Your task to perform on an android device: toggle pop-ups in chrome Image 0: 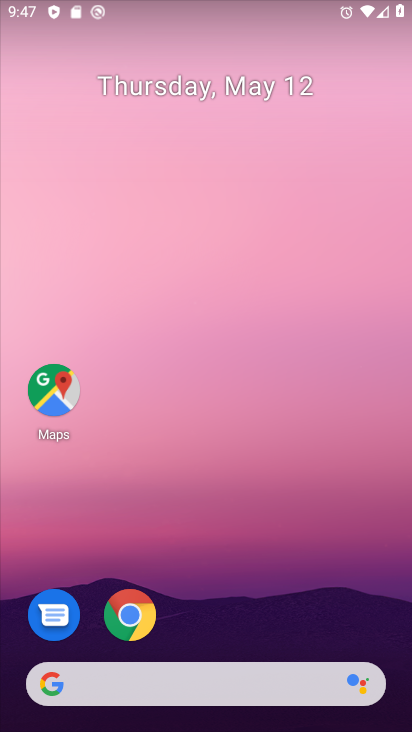
Step 0: drag from (265, 626) to (330, 104)
Your task to perform on an android device: toggle pop-ups in chrome Image 1: 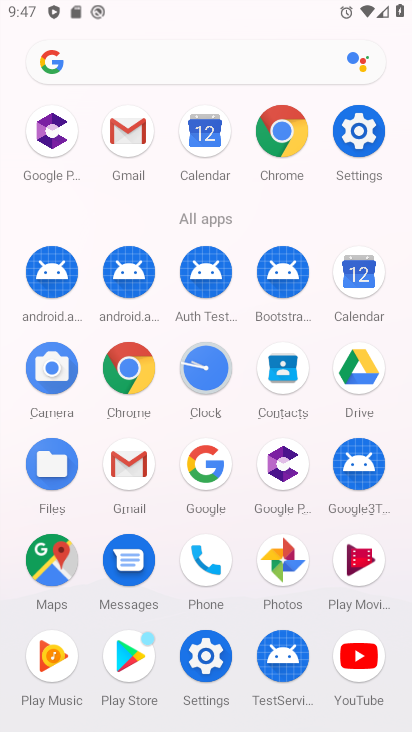
Step 1: click (123, 367)
Your task to perform on an android device: toggle pop-ups in chrome Image 2: 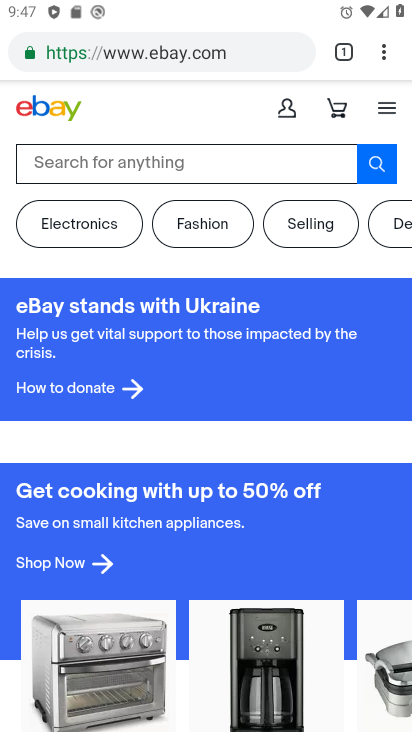
Step 2: drag from (387, 48) to (219, 660)
Your task to perform on an android device: toggle pop-ups in chrome Image 3: 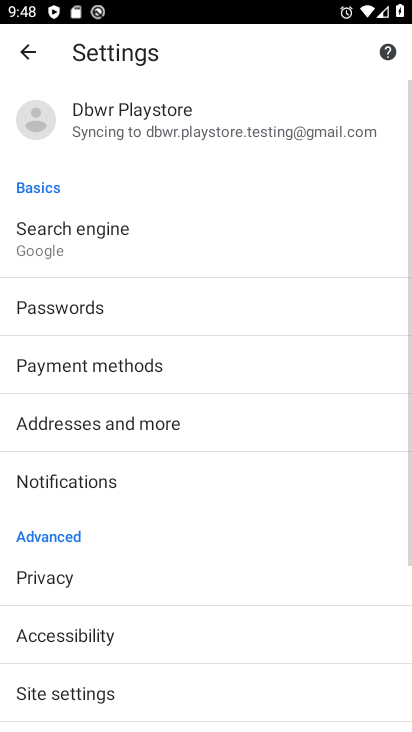
Step 3: drag from (184, 545) to (198, 236)
Your task to perform on an android device: toggle pop-ups in chrome Image 4: 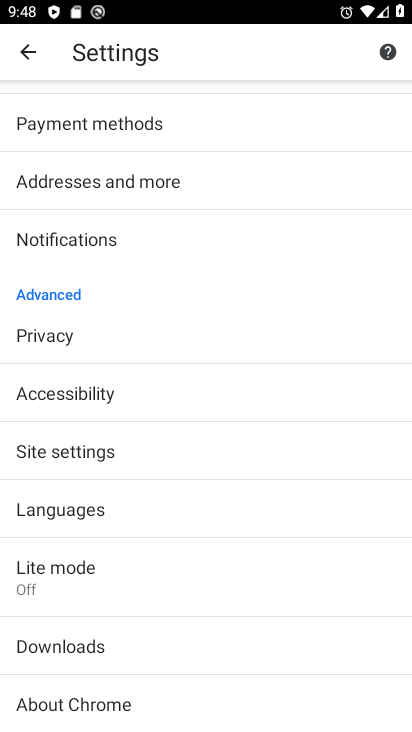
Step 4: click (61, 459)
Your task to perform on an android device: toggle pop-ups in chrome Image 5: 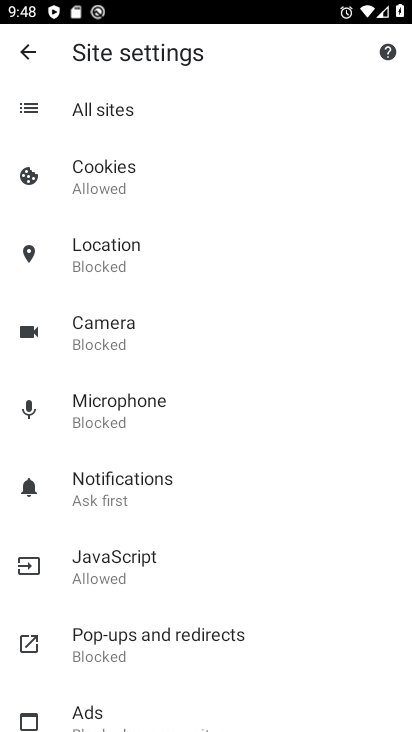
Step 5: drag from (112, 651) to (185, 367)
Your task to perform on an android device: toggle pop-ups in chrome Image 6: 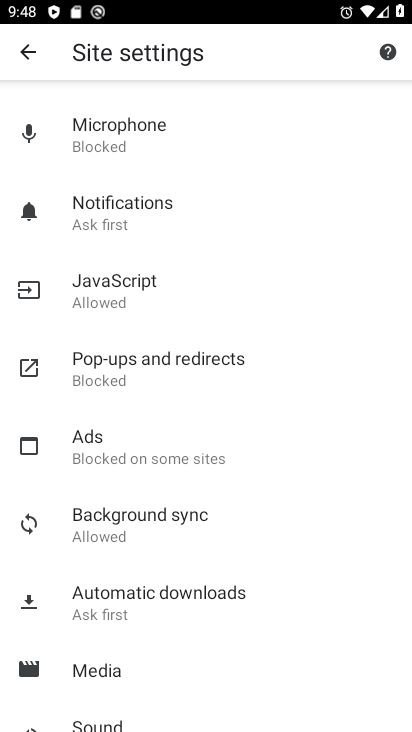
Step 6: click (160, 360)
Your task to perform on an android device: toggle pop-ups in chrome Image 7: 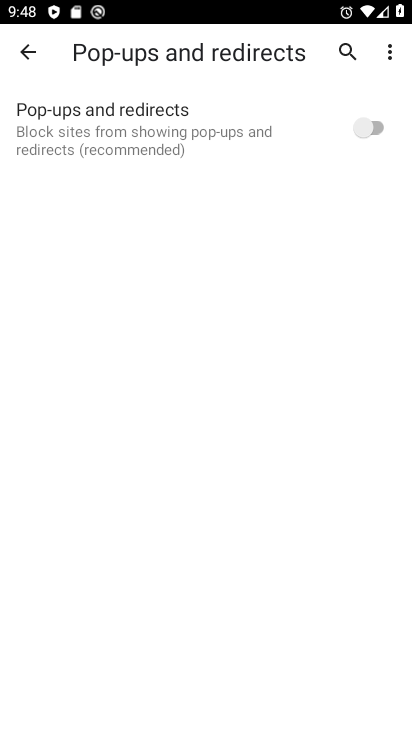
Step 7: click (354, 126)
Your task to perform on an android device: toggle pop-ups in chrome Image 8: 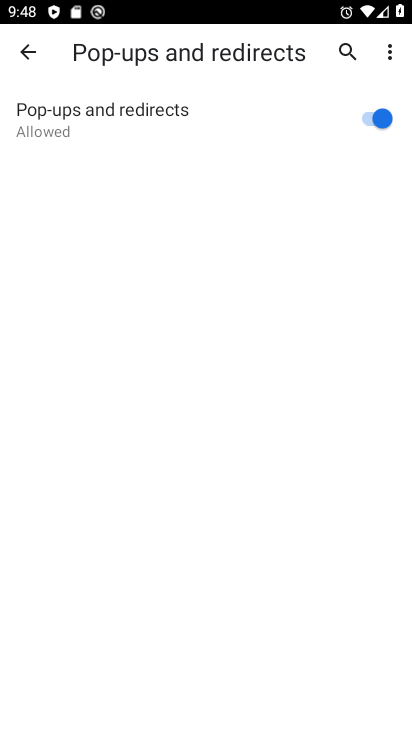
Step 8: task complete